Your task to perform on an android device: Open Google Chrome and click the shortcut for Amazon.com Image 0: 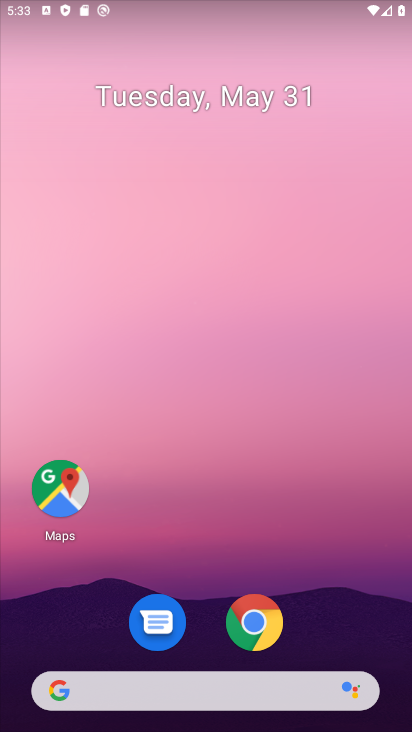
Step 0: drag from (285, 673) to (309, 10)
Your task to perform on an android device: Open Google Chrome and click the shortcut for Amazon.com Image 1: 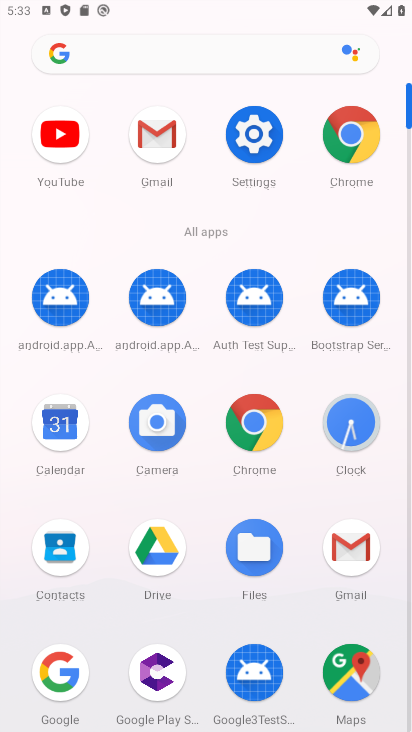
Step 1: click (273, 423)
Your task to perform on an android device: Open Google Chrome and click the shortcut for Amazon.com Image 2: 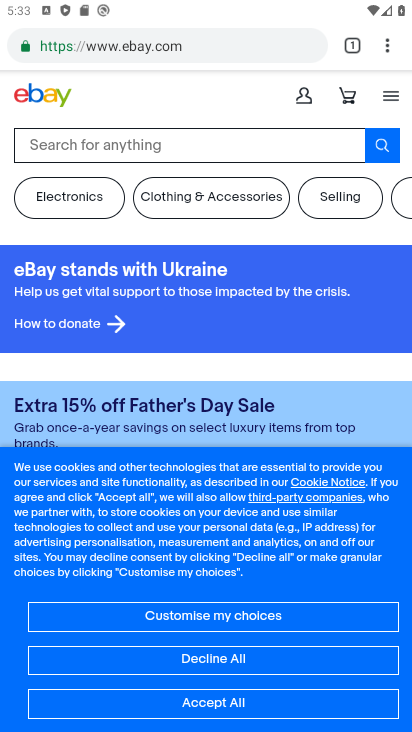
Step 2: drag from (391, 46) to (275, 100)
Your task to perform on an android device: Open Google Chrome and click the shortcut for Amazon.com Image 3: 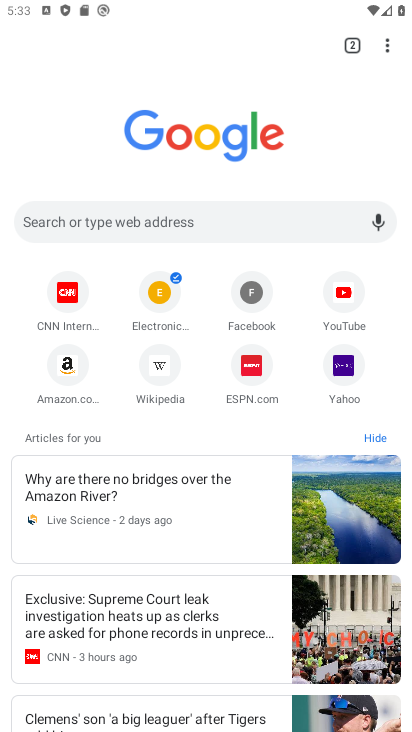
Step 3: click (76, 374)
Your task to perform on an android device: Open Google Chrome and click the shortcut for Amazon.com Image 4: 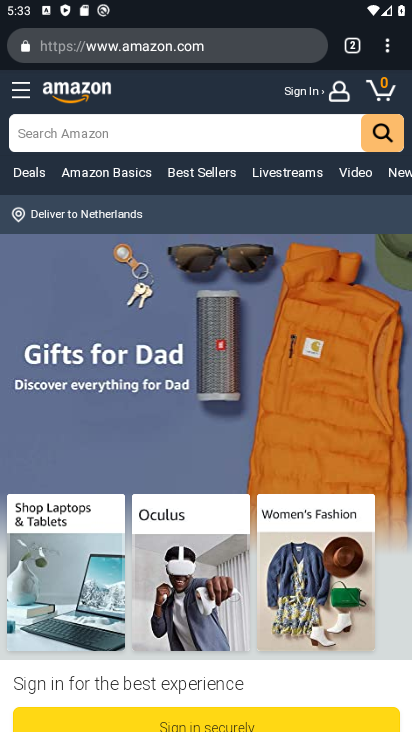
Step 4: drag from (378, 42) to (229, 465)
Your task to perform on an android device: Open Google Chrome and click the shortcut for Amazon.com Image 5: 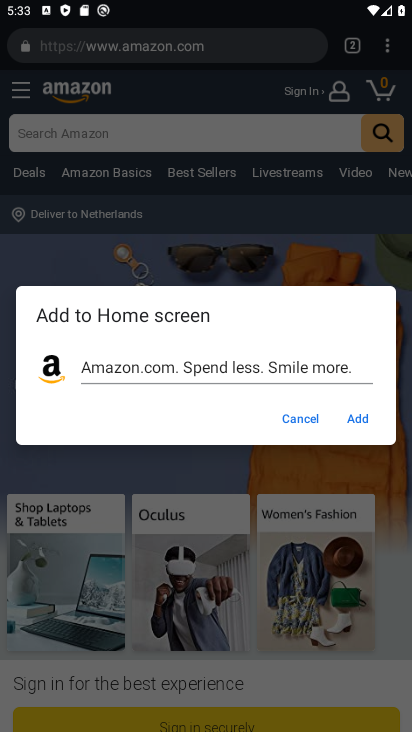
Step 5: click (350, 417)
Your task to perform on an android device: Open Google Chrome and click the shortcut for Amazon.com Image 6: 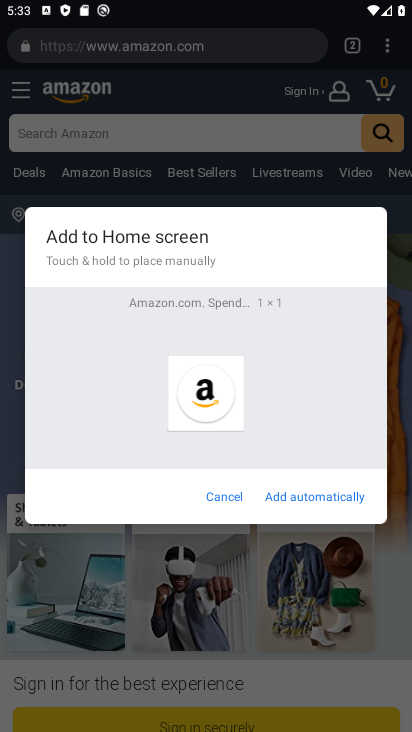
Step 6: click (289, 499)
Your task to perform on an android device: Open Google Chrome and click the shortcut for Amazon.com Image 7: 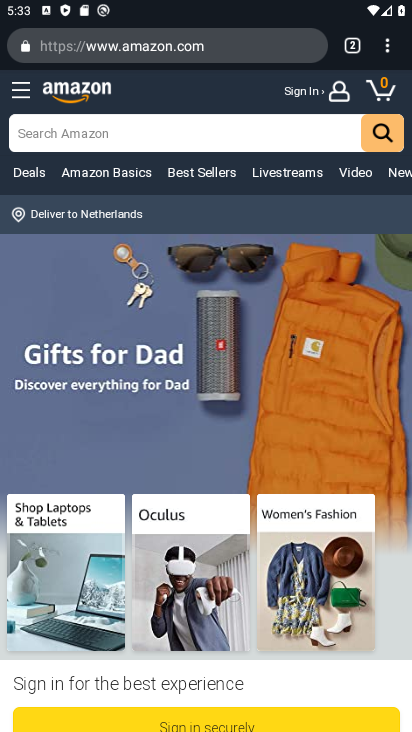
Step 7: task complete